Your task to perform on an android device: turn off priority inbox in the gmail app Image 0: 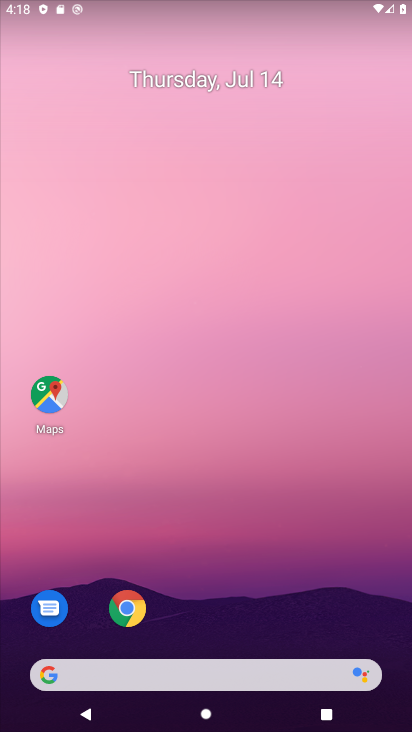
Step 0: drag from (189, 617) to (163, 186)
Your task to perform on an android device: turn off priority inbox in the gmail app Image 1: 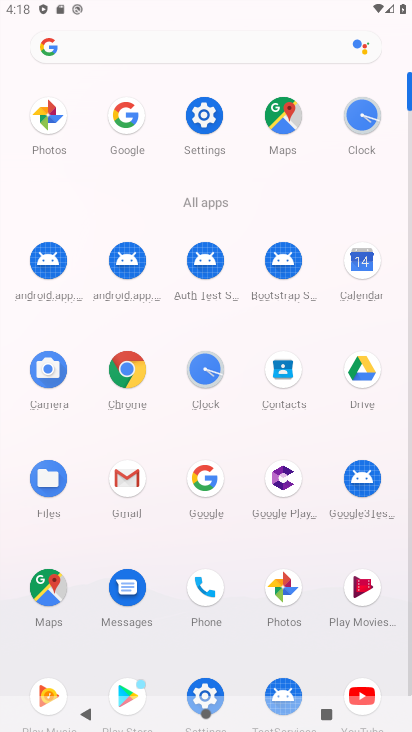
Step 1: click (128, 478)
Your task to perform on an android device: turn off priority inbox in the gmail app Image 2: 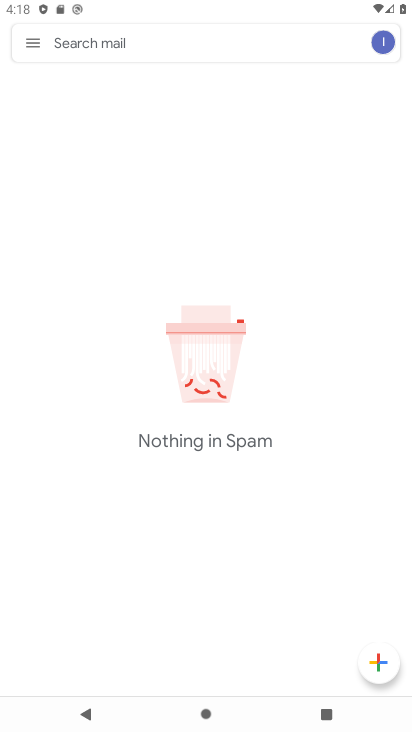
Step 2: click (23, 50)
Your task to perform on an android device: turn off priority inbox in the gmail app Image 3: 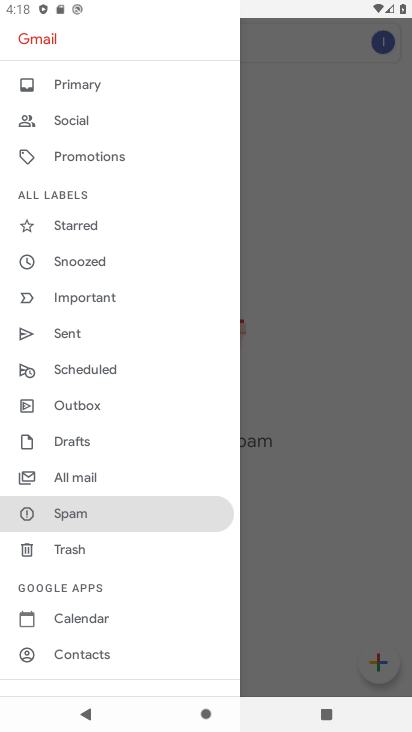
Step 3: drag from (111, 593) to (104, 319)
Your task to perform on an android device: turn off priority inbox in the gmail app Image 4: 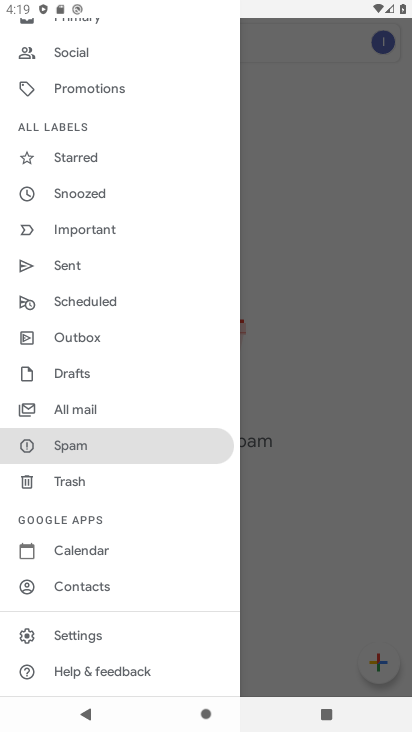
Step 4: click (94, 630)
Your task to perform on an android device: turn off priority inbox in the gmail app Image 5: 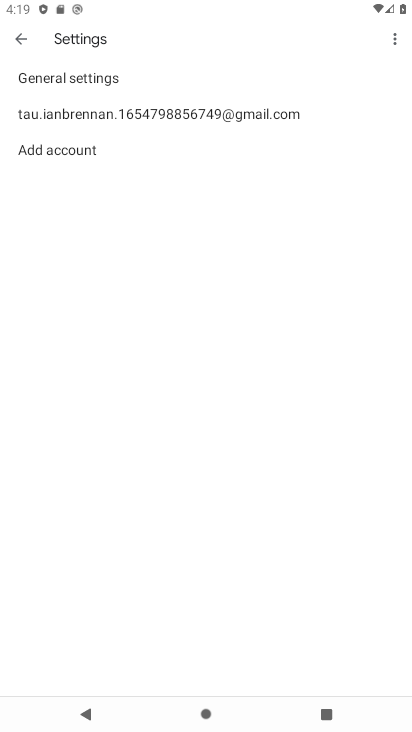
Step 5: click (99, 120)
Your task to perform on an android device: turn off priority inbox in the gmail app Image 6: 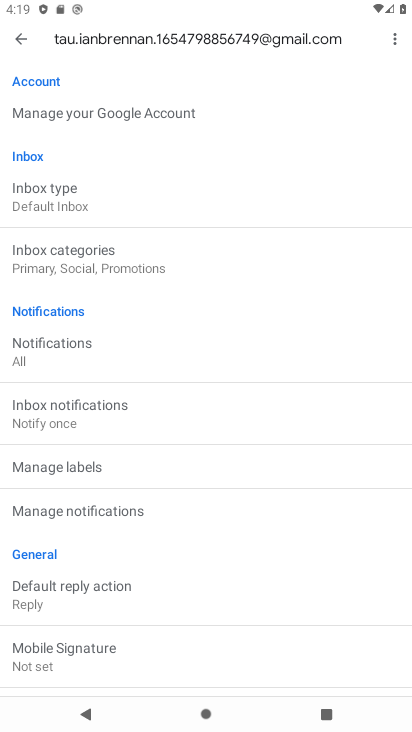
Step 6: click (107, 204)
Your task to perform on an android device: turn off priority inbox in the gmail app Image 7: 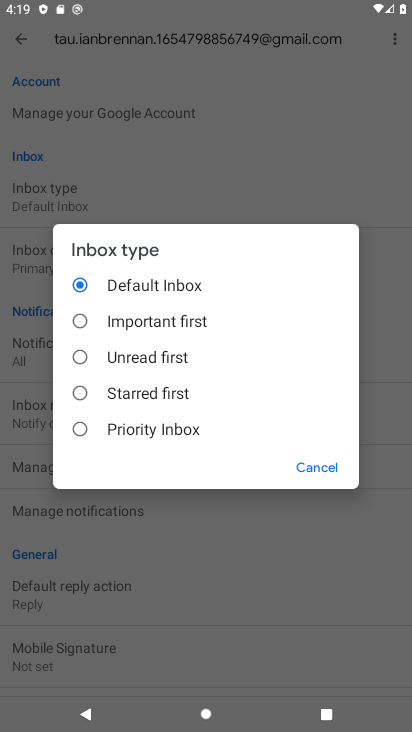
Step 7: task complete